Your task to perform on an android device: Open ESPN.com Image 0: 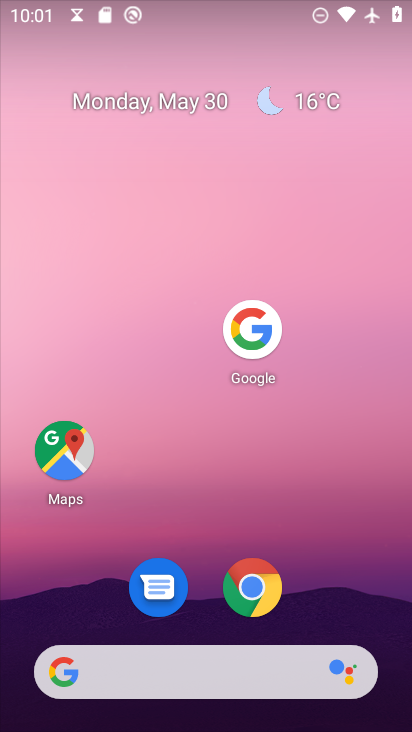
Step 0: click (256, 595)
Your task to perform on an android device: Open ESPN.com Image 1: 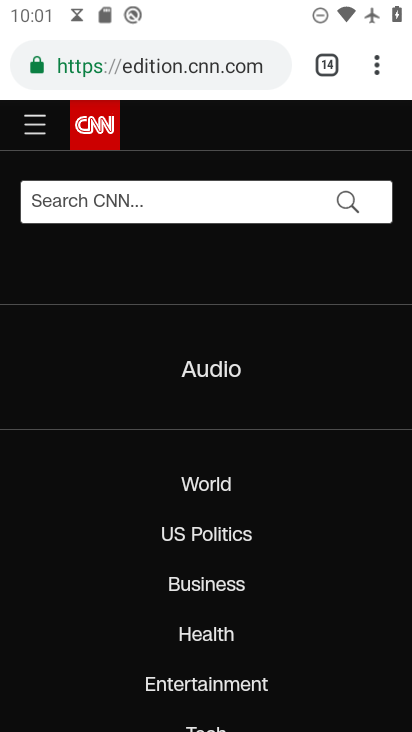
Step 1: drag from (380, 84) to (195, 140)
Your task to perform on an android device: Open ESPN.com Image 2: 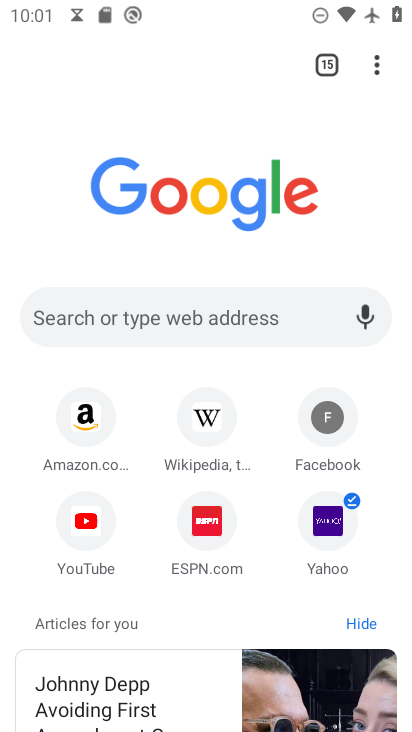
Step 2: click (208, 533)
Your task to perform on an android device: Open ESPN.com Image 3: 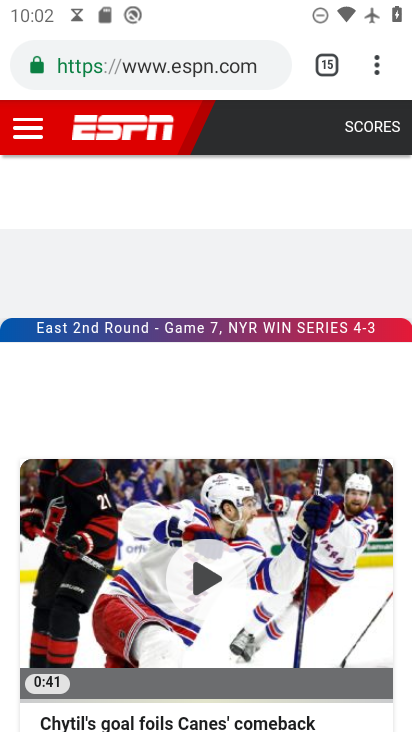
Step 3: task complete